Your task to perform on an android device: Go to wifi settings Image 0: 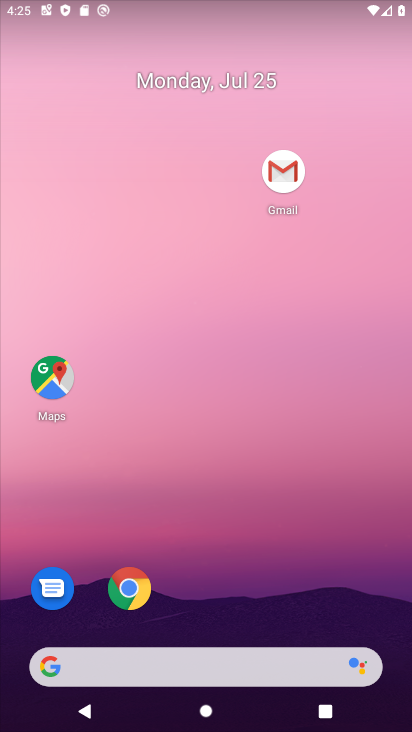
Step 0: drag from (341, 569) to (348, 128)
Your task to perform on an android device: Go to wifi settings Image 1: 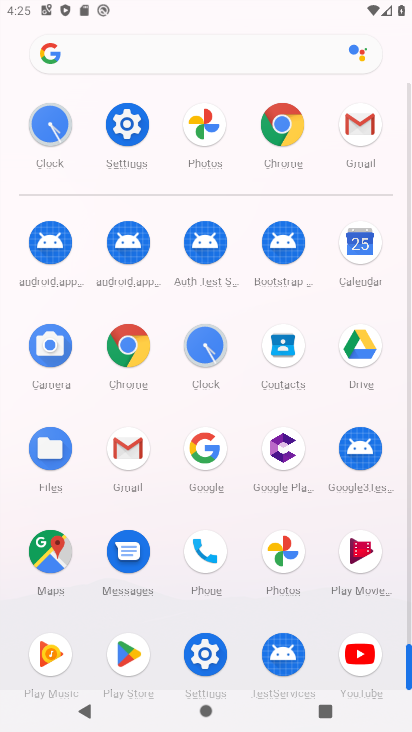
Step 1: click (120, 114)
Your task to perform on an android device: Go to wifi settings Image 2: 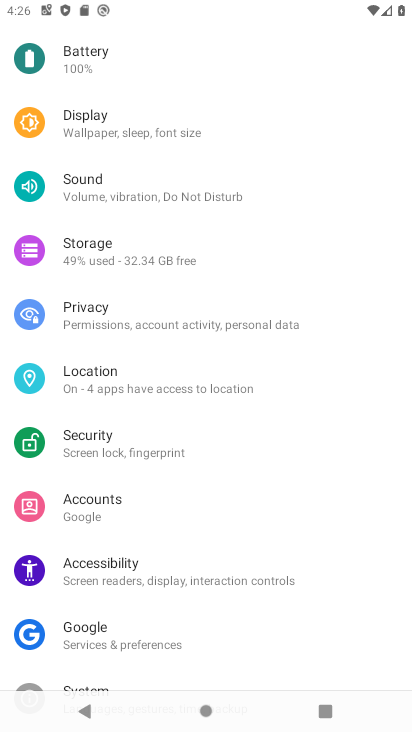
Step 2: drag from (168, 67) to (168, 467)
Your task to perform on an android device: Go to wifi settings Image 3: 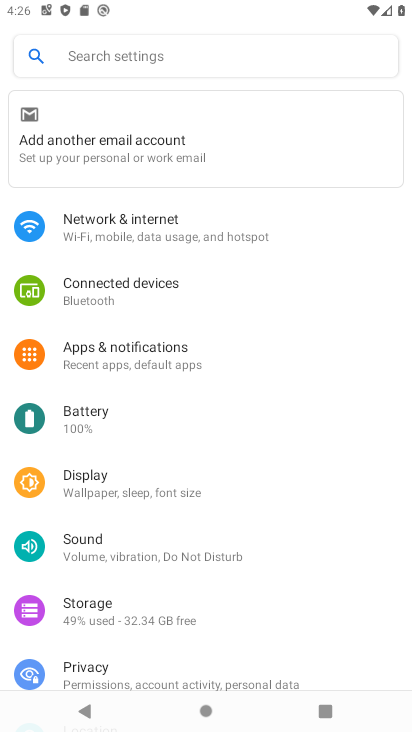
Step 3: click (109, 224)
Your task to perform on an android device: Go to wifi settings Image 4: 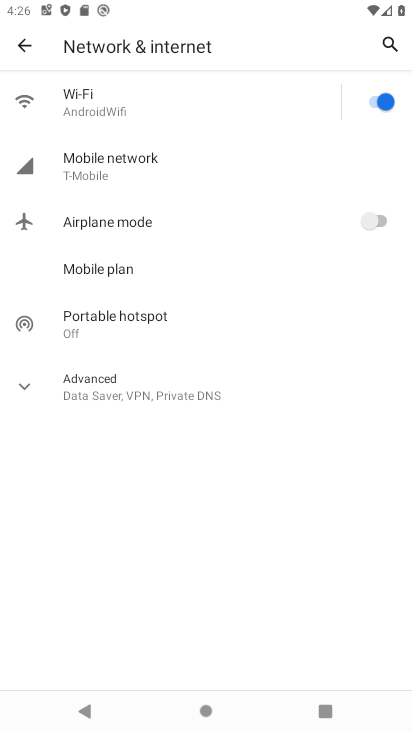
Step 4: click (260, 97)
Your task to perform on an android device: Go to wifi settings Image 5: 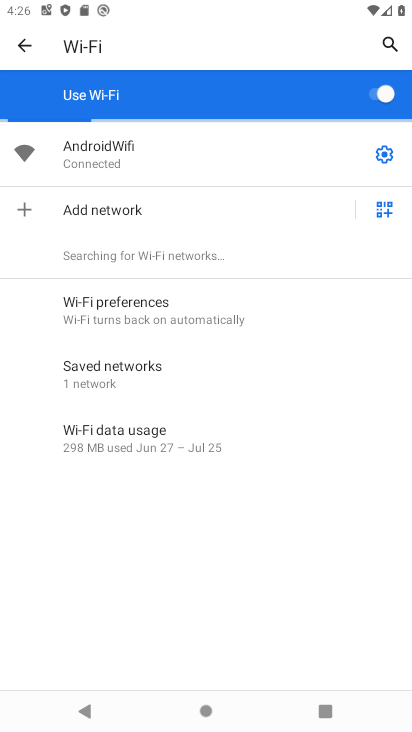
Step 5: click (397, 158)
Your task to perform on an android device: Go to wifi settings Image 6: 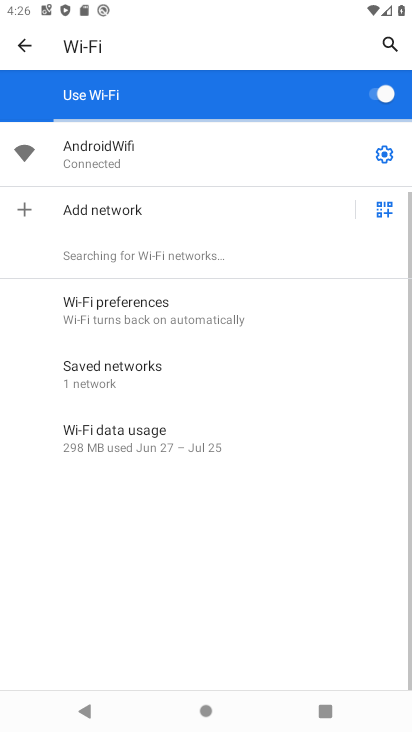
Step 6: task complete